Your task to perform on an android device: turn off location Image 0: 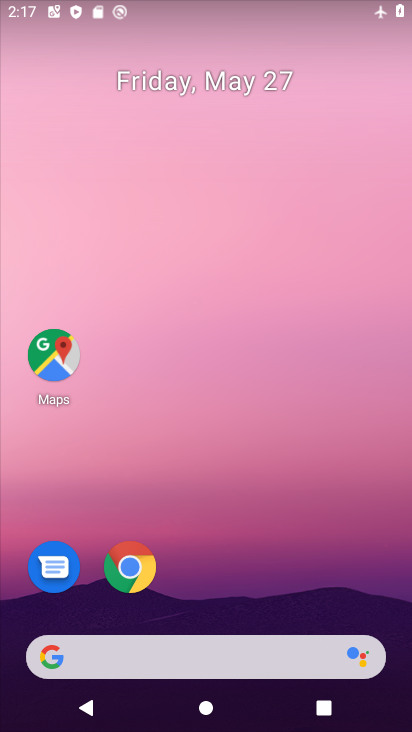
Step 0: drag from (268, 537) to (173, 139)
Your task to perform on an android device: turn off location Image 1: 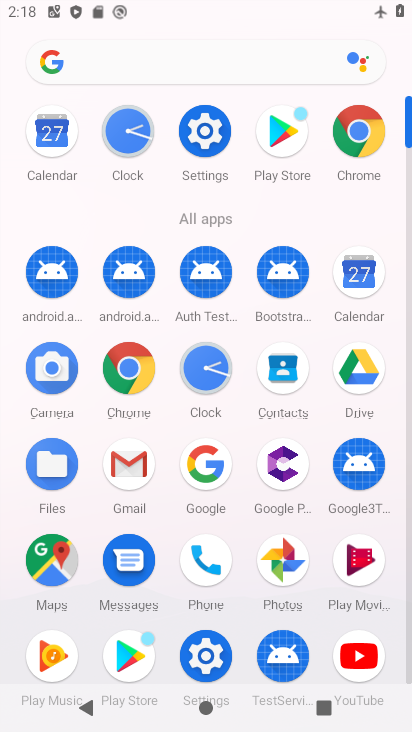
Step 1: click (198, 118)
Your task to perform on an android device: turn off location Image 2: 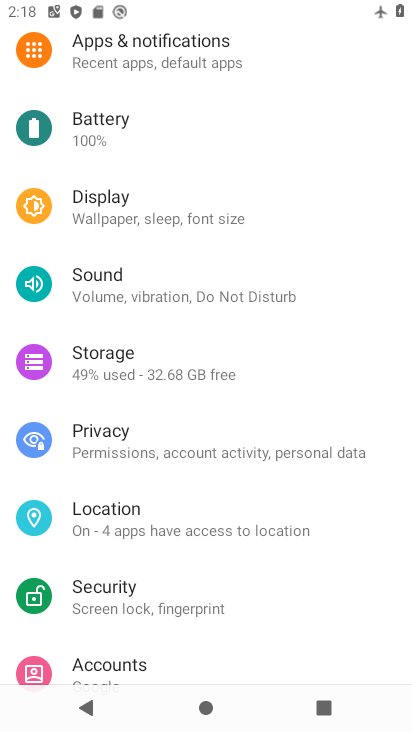
Step 2: click (146, 523)
Your task to perform on an android device: turn off location Image 3: 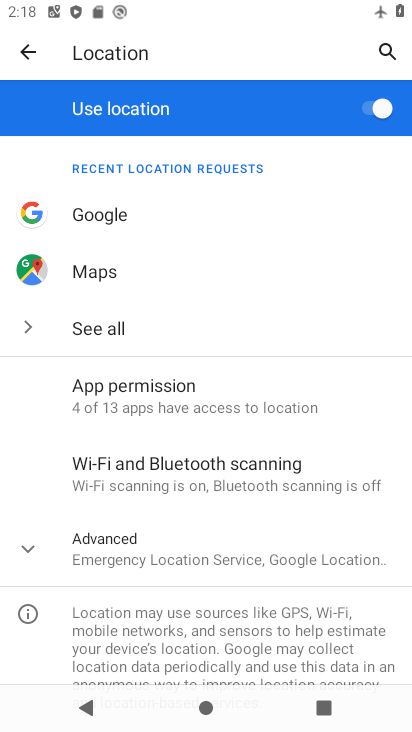
Step 3: click (372, 105)
Your task to perform on an android device: turn off location Image 4: 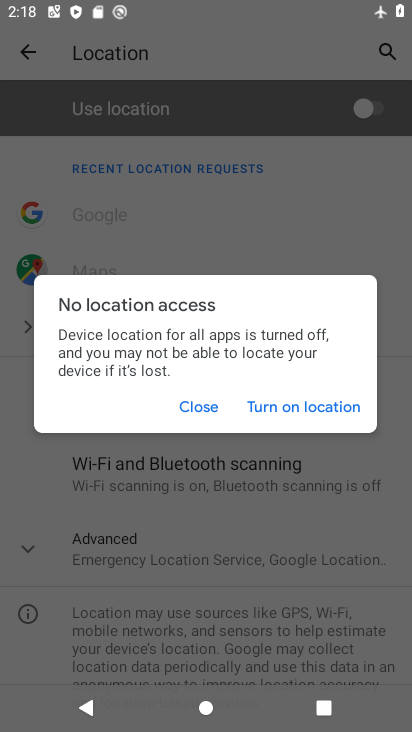
Step 4: click (206, 408)
Your task to perform on an android device: turn off location Image 5: 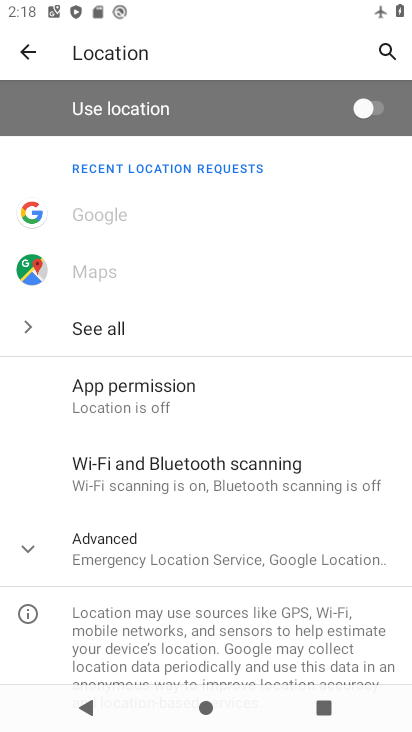
Step 5: task complete